Your task to perform on an android device: toggle improve location accuracy Image 0: 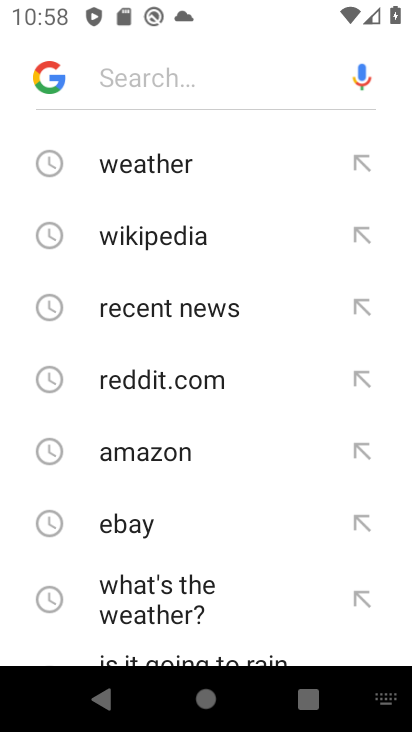
Step 0: press home button
Your task to perform on an android device: toggle improve location accuracy Image 1: 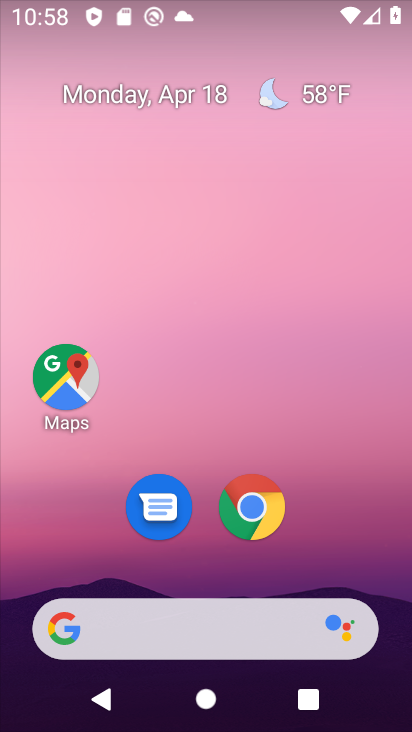
Step 1: drag from (175, 507) to (221, 105)
Your task to perform on an android device: toggle improve location accuracy Image 2: 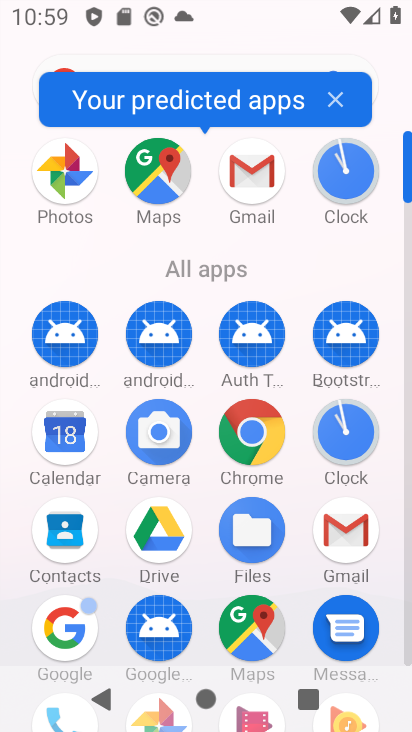
Step 2: drag from (207, 564) to (258, 156)
Your task to perform on an android device: toggle improve location accuracy Image 3: 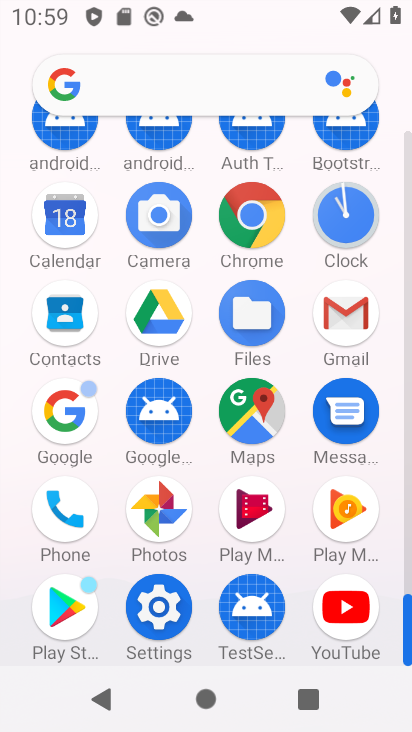
Step 3: click (169, 621)
Your task to perform on an android device: toggle improve location accuracy Image 4: 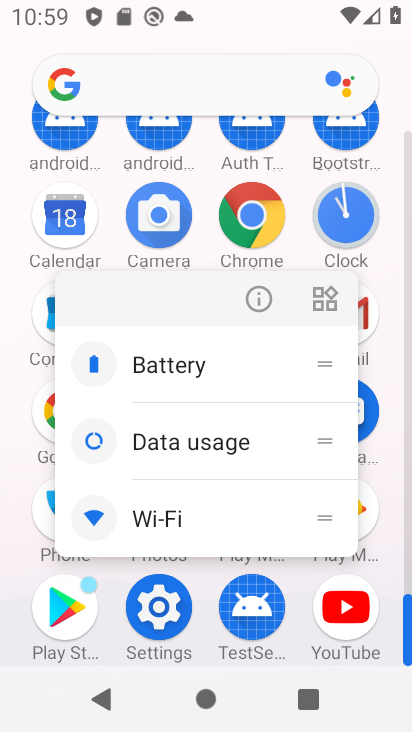
Step 4: click (162, 618)
Your task to perform on an android device: toggle improve location accuracy Image 5: 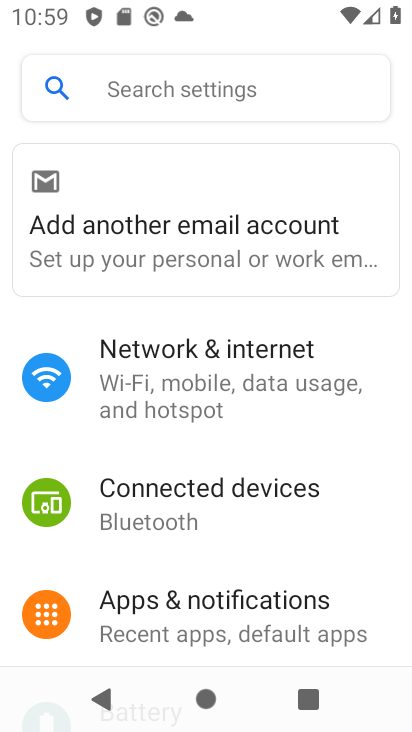
Step 5: drag from (239, 613) to (312, 144)
Your task to perform on an android device: toggle improve location accuracy Image 6: 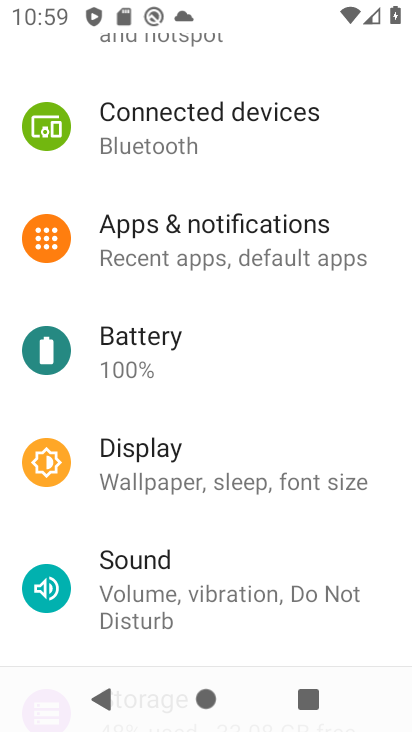
Step 6: drag from (184, 528) to (264, 35)
Your task to perform on an android device: toggle improve location accuracy Image 7: 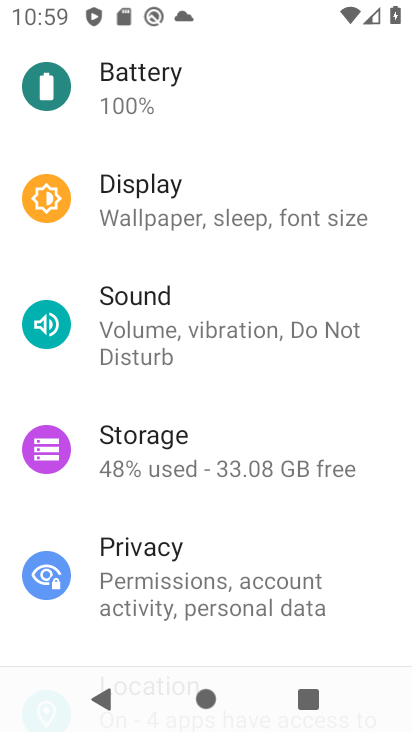
Step 7: drag from (188, 597) to (316, 5)
Your task to perform on an android device: toggle improve location accuracy Image 8: 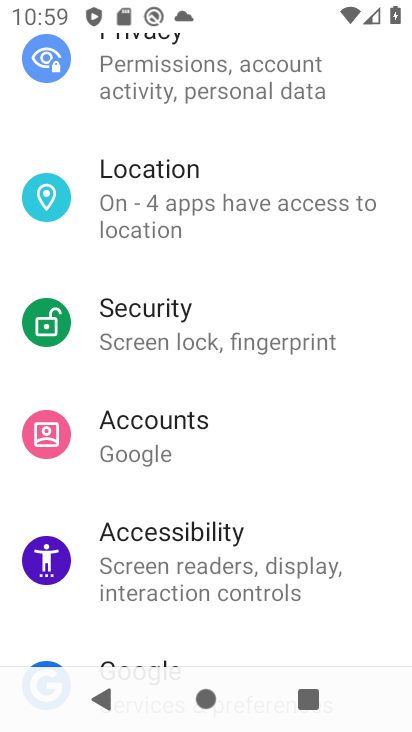
Step 8: click (182, 216)
Your task to perform on an android device: toggle improve location accuracy Image 9: 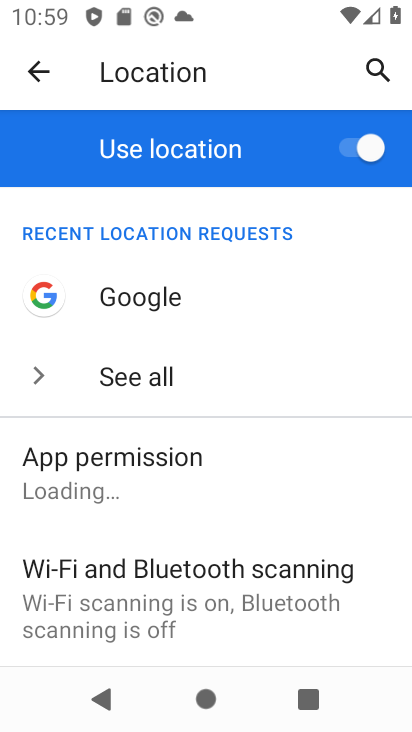
Step 9: drag from (216, 601) to (245, 255)
Your task to perform on an android device: toggle improve location accuracy Image 10: 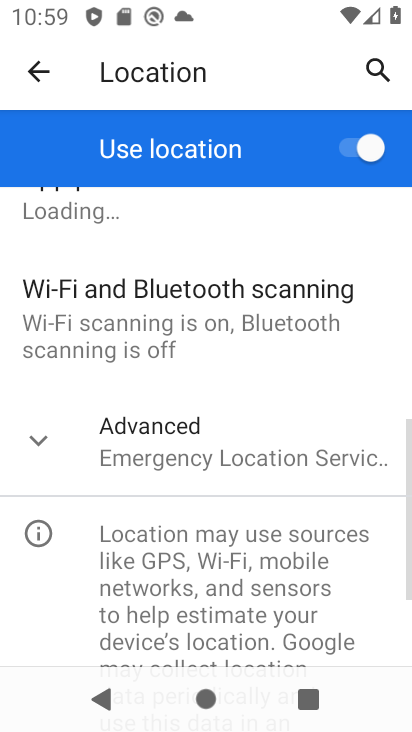
Step 10: click (158, 469)
Your task to perform on an android device: toggle improve location accuracy Image 11: 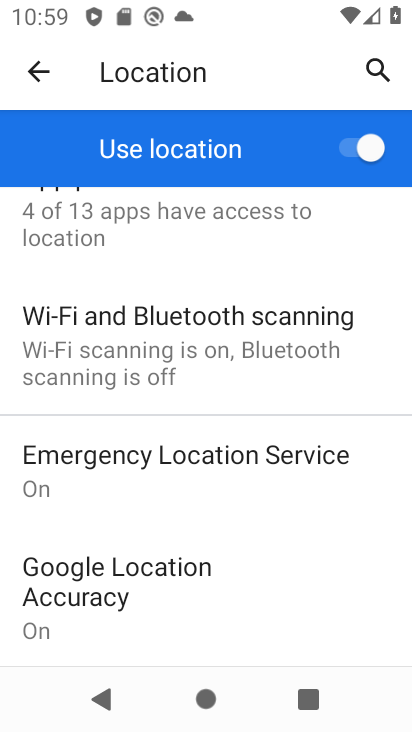
Step 11: click (169, 584)
Your task to perform on an android device: toggle improve location accuracy Image 12: 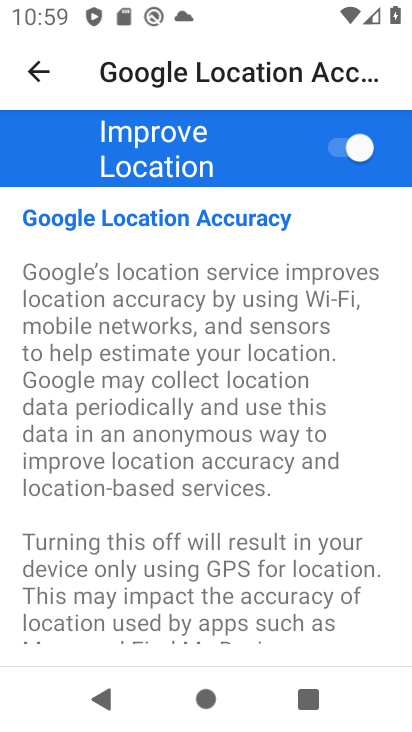
Step 12: click (344, 149)
Your task to perform on an android device: toggle improve location accuracy Image 13: 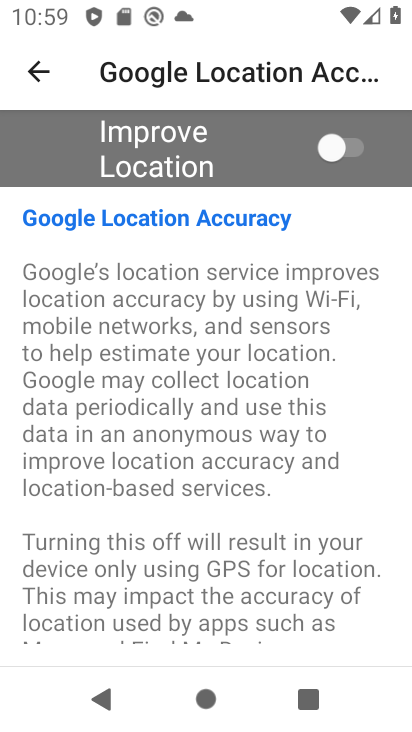
Step 13: task complete